Your task to perform on an android device: turn off picture-in-picture Image 0: 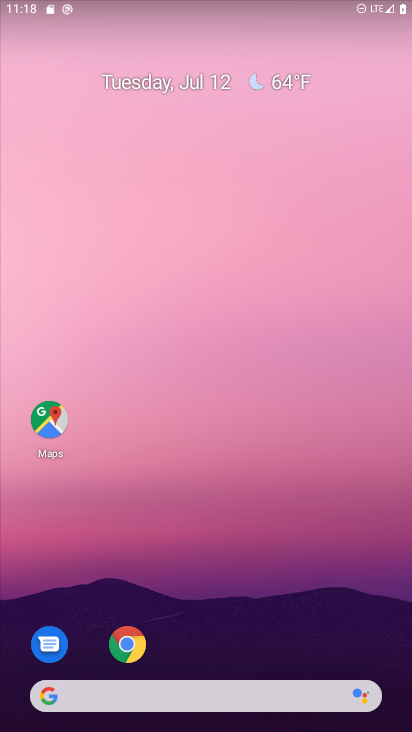
Step 0: drag from (240, 647) to (244, 182)
Your task to perform on an android device: turn off picture-in-picture Image 1: 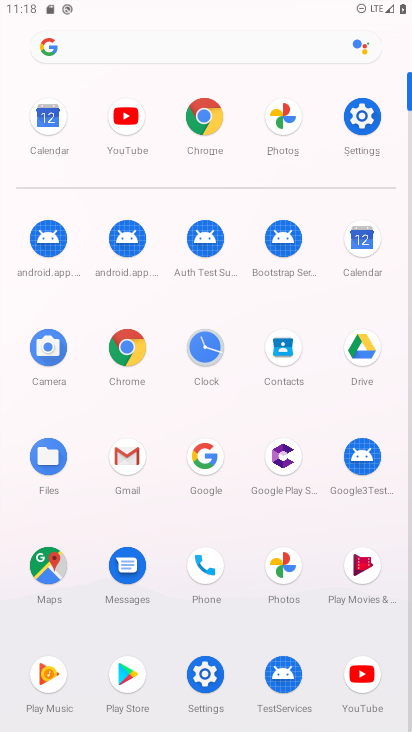
Step 1: click (375, 128)
Your task to perform on an android device: turn off picture-in-picture Image 2: 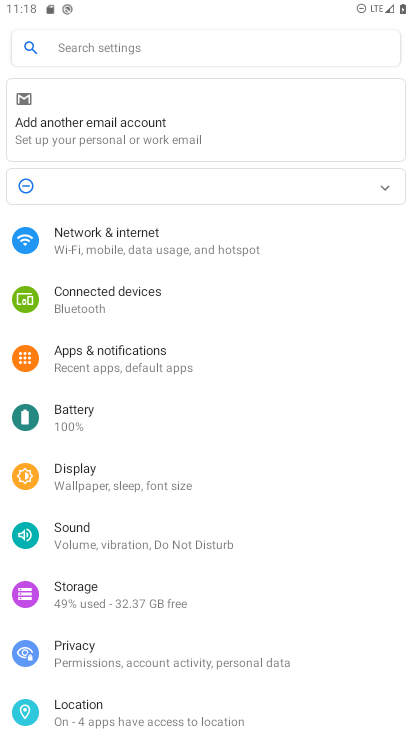
Step 2: drag from (104, 657) to (150, 271)
Your task to perform on an android device: turn off picture-in-picture Image 3: 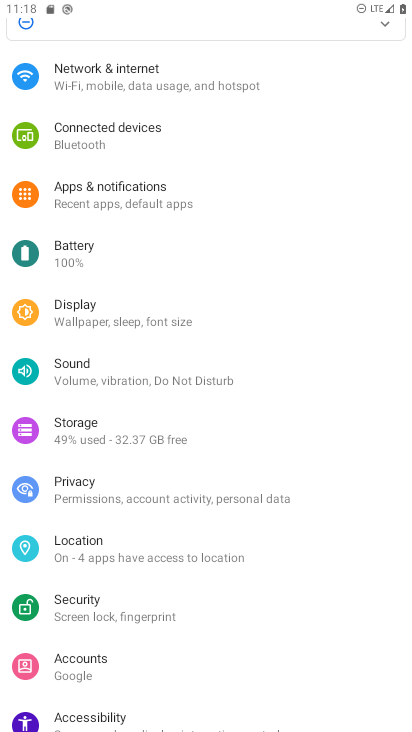
Step 3: drag from (203, 598) to (215, 245)
Your task to perform on an android device: turn off picture-in-picture Image 4: 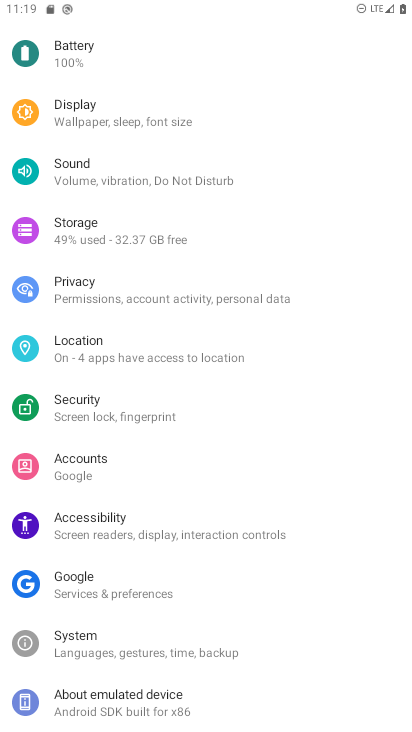
Step 4: drag from (147, 166) to (147, 722)
Your task to perform on an android device: turn off picture-in-picture Image 5: 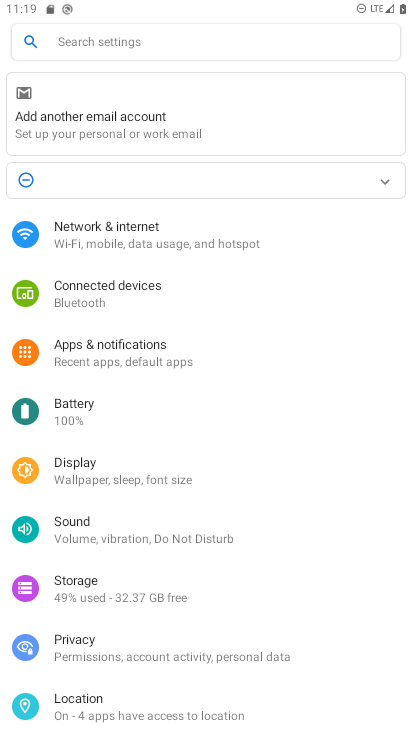
Step 5: click (185, 361)
Your task to perform on an android device: turn off picture-in-picture Image 6: 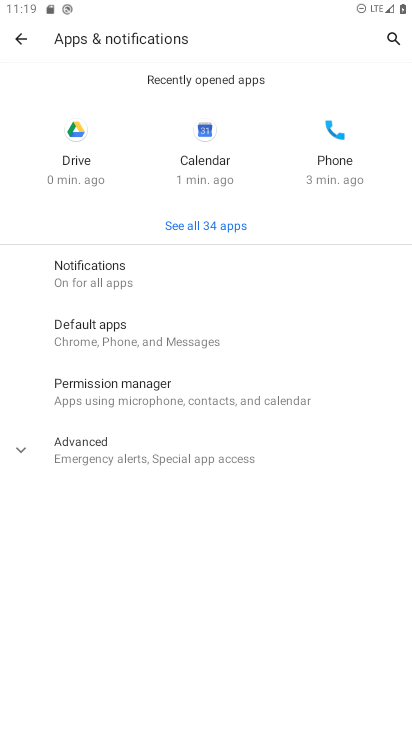
Step 6: click (111, 444)
Your task to perform on an android device: turn off picture-in-picture Image 7: 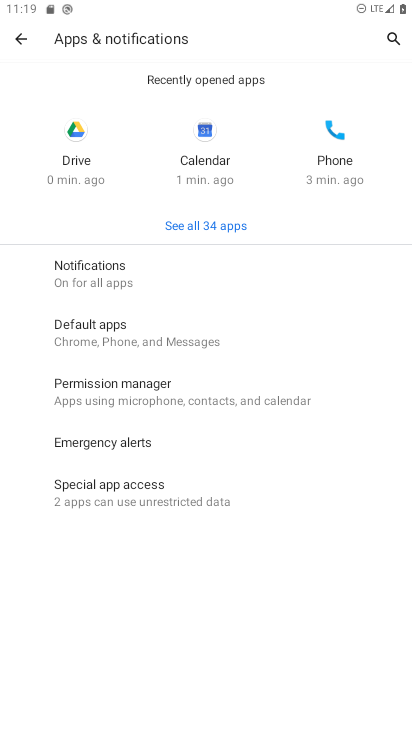
Step 7: click (132, 279)
Your task to perform on an android device: turn off picture-in-picture Image 8: 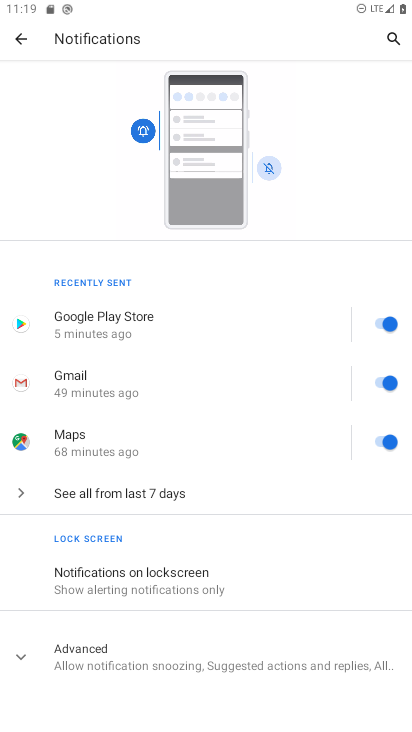
Step 8: click (132, 644)
Your task to perform on an android device: turn off picture-in-picture Image 9: 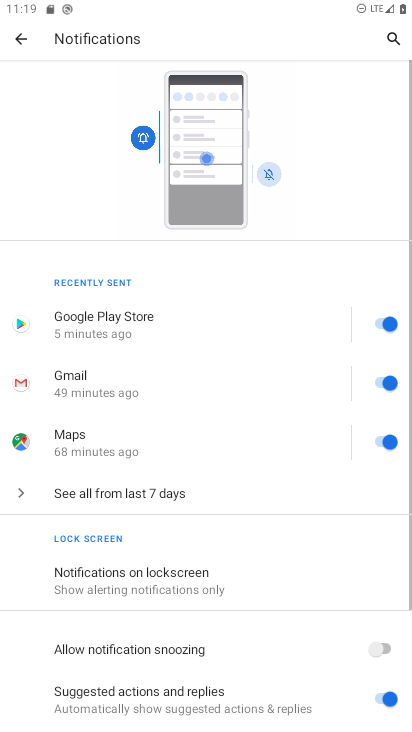
Step 9: task complete